Your task to perform on an android device: Open Yahoo.com Image 0: 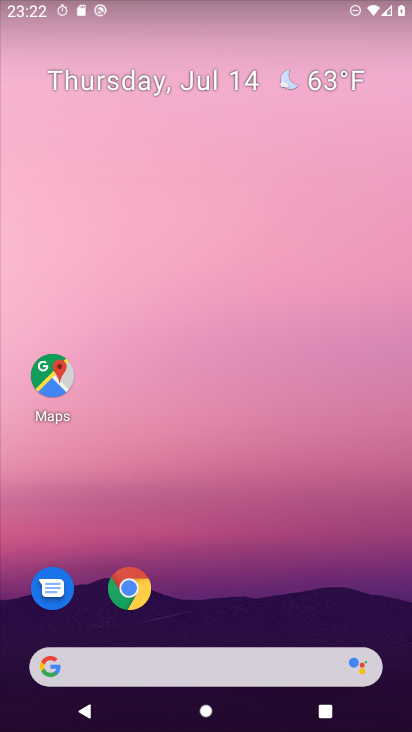
Step 0: drag from (368, 602) to (381, 118)
Your task to perform on an android device: Open Yahoo.com Image 1: 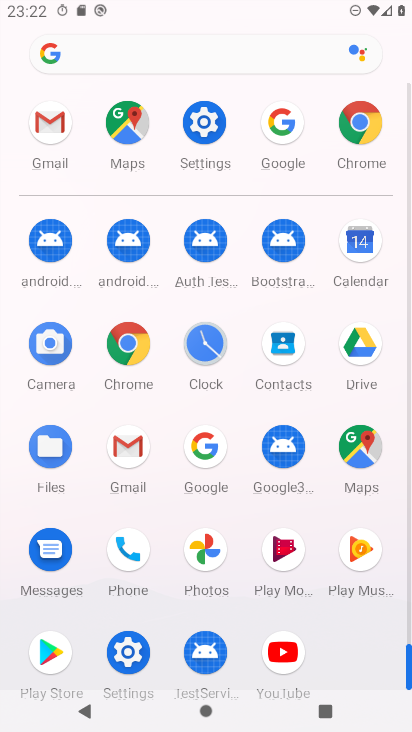
Step 1: click (368, 127)
Your task to perform on an android device: Open Yahoo.com Image 2: 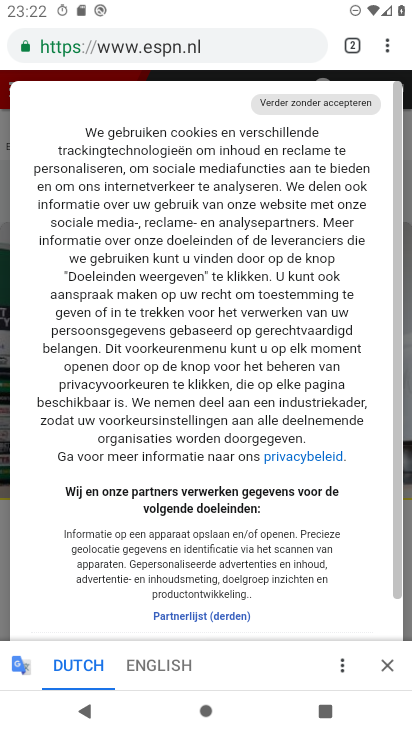
Step 2: click (250, 42)
Your task to perform on an android device: Open Yahoo.com Image 3: 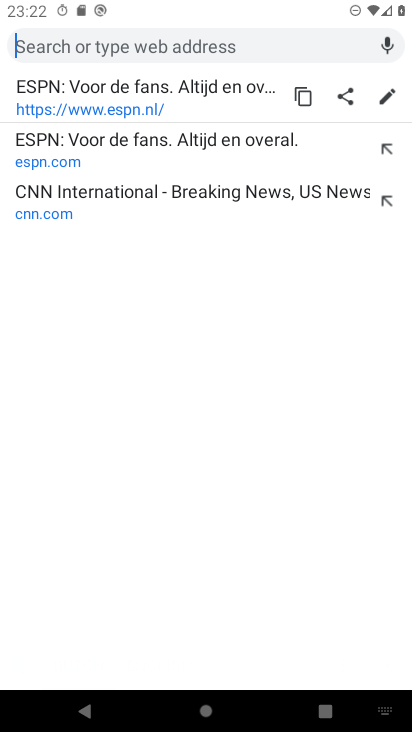
Step 3: type "yahoo.com"
Your task to perform on an android device: Open Yahoo.com Image 4: 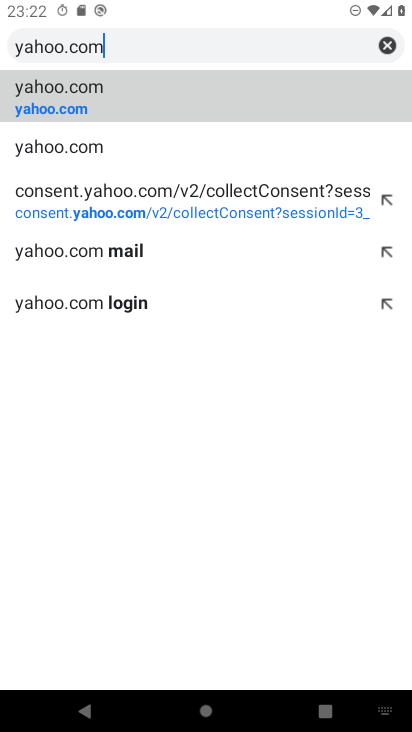
Step 4: click (342, 102)
Your task to perform on an android device: Open Yahoo.com Image 5: 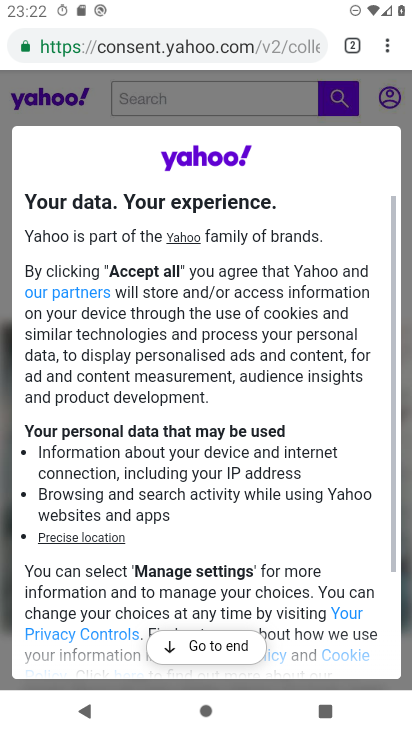
Step 5: task complete